Your task to perform on an android device: Go to Wikipedia Image 0: 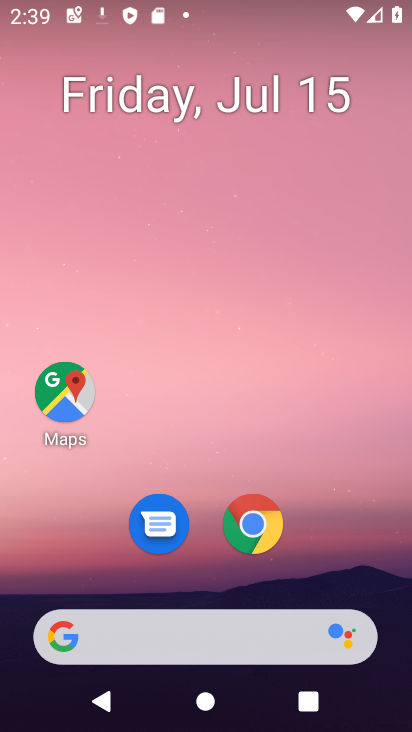
Step 0: click (258, 532)
Your task to perform on an android device: Go to Wikipedia Image 1: 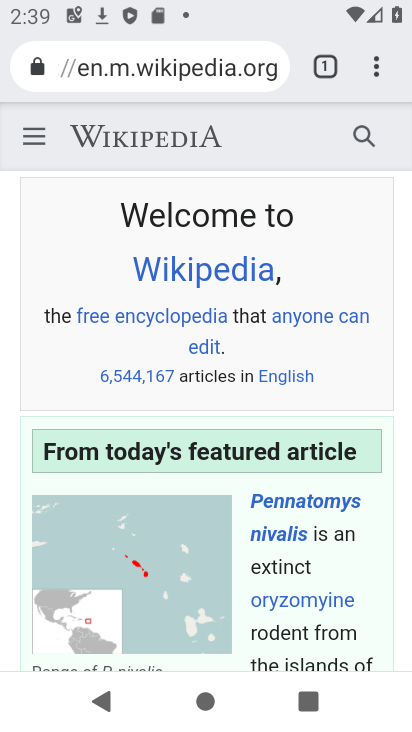
Step 1: task complete